Your task to perform on an android device: add a contact Image 0: 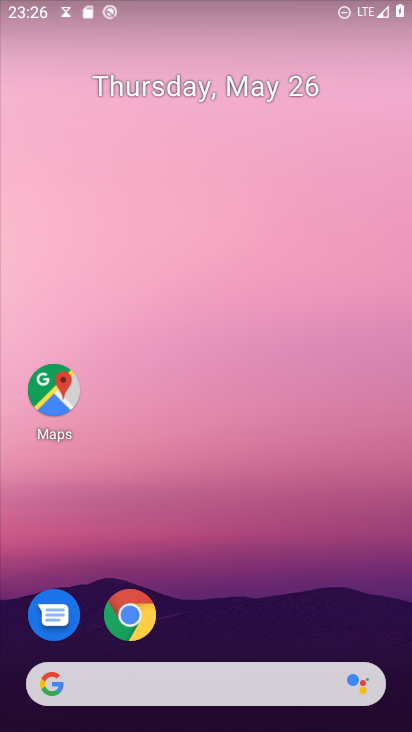
Step 0: drag from (230, 472) to (245, 204)
Your task to perform on an android device: add a contact Image 1: 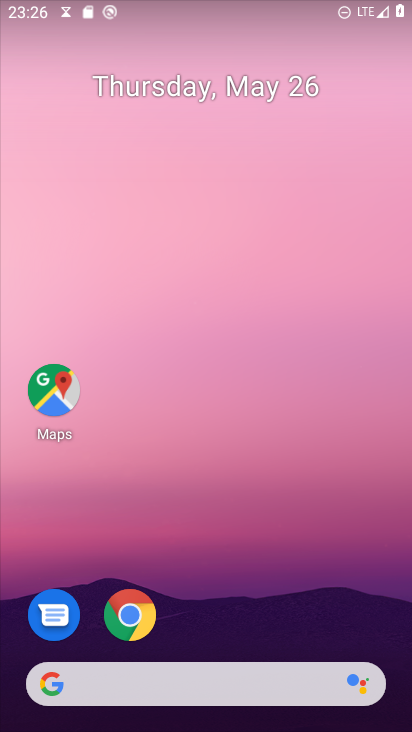
Step 1: drag from (209, 592) to (212, 166)
Your task to perform on an android device: add a contact Image 2: 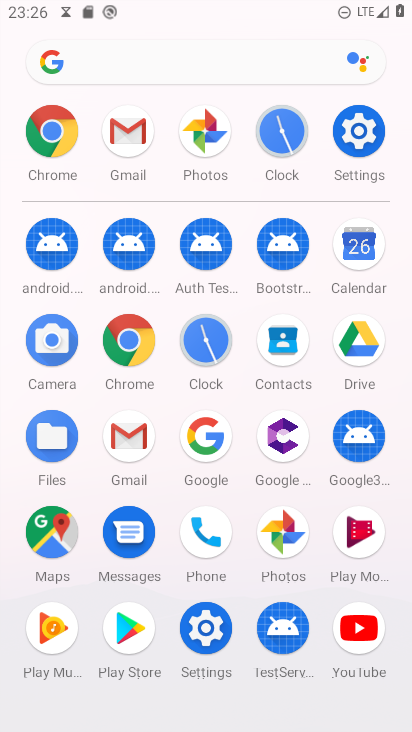
Step 2: click (213, 514)
Your task to perform on an android device: add a contact Image 3: 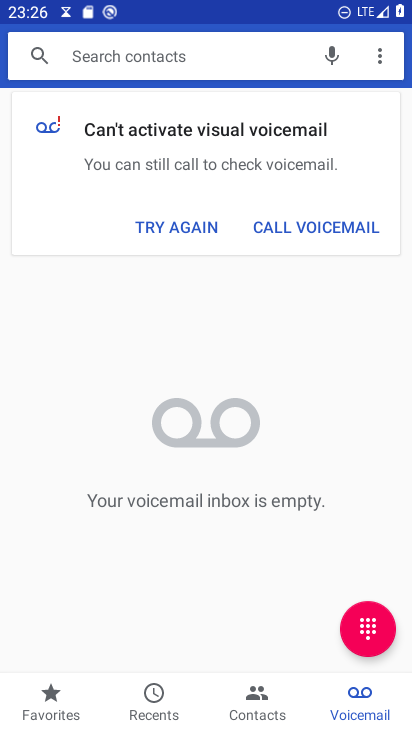
Step 3: click (263, 715)
Your task to perform on an android device: add a contact Image 4: 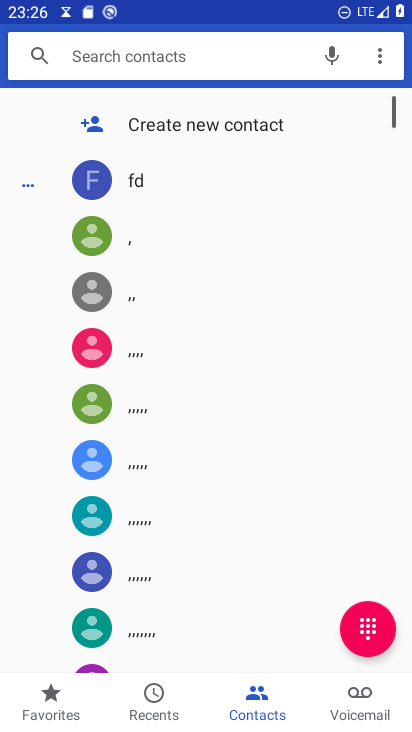
Step 4: click (165, 122)
Your task to perform on an android device: add a contact Image 5: 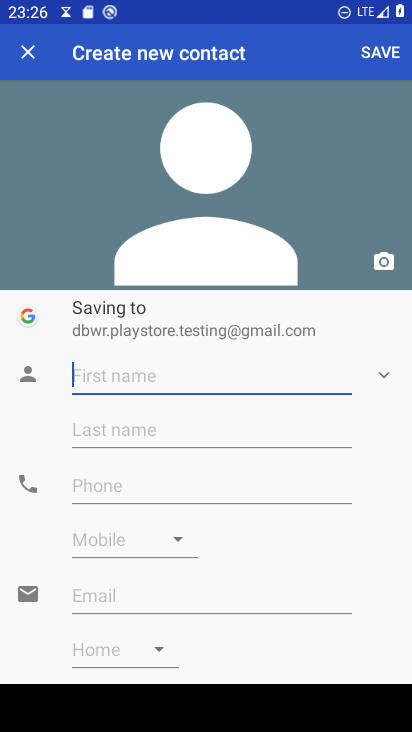
Step 5: click (153, 374)
Your task to perform on an android device: add a contact Image 6: 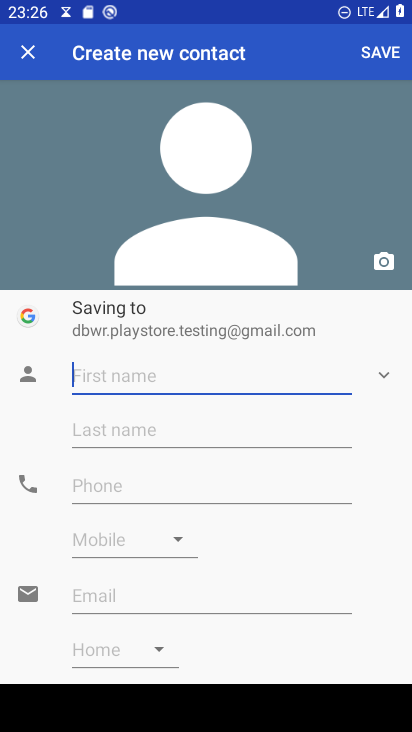
Step 6: type "fgh"
Your task to perform on an android device: add a contact Image 7: 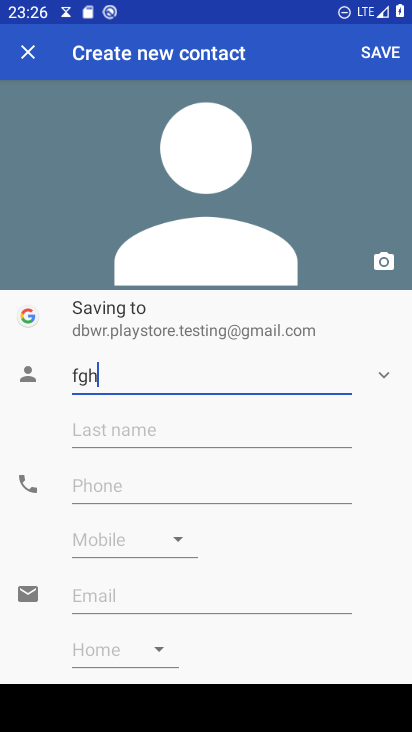
Step 7: click (212, 468)
Your task to perform on an android device: add a contact Image 8: 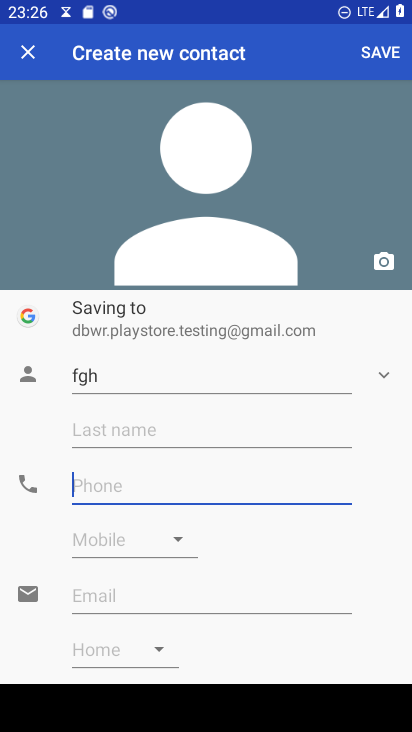
Step 8: type "5678"
Your task to perform on an android device: add a contact Image 9: 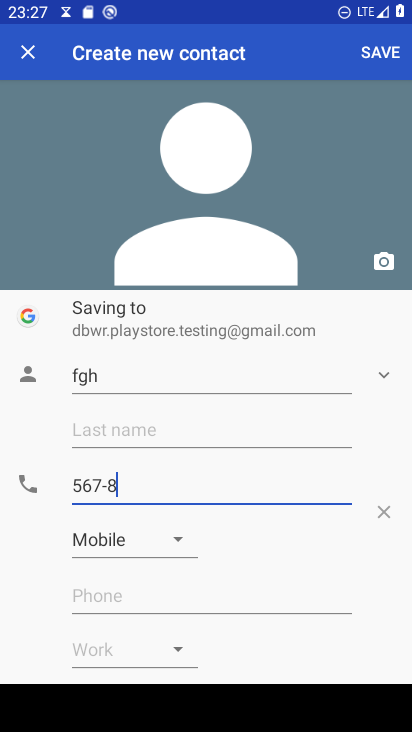
Step 9: task complete